Your task to perform on an android device: open chrome and create a bookmark for the current page Image 0: 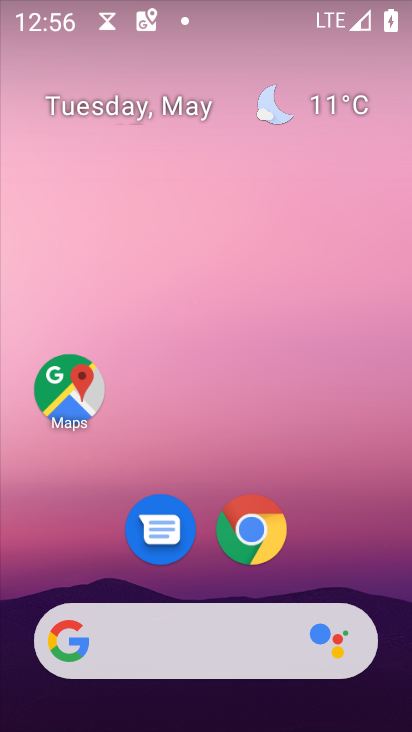
Step 0: click (255, 530)
Your task to perform on an android device: open chrome and create a bookmark for the current page Image 1: 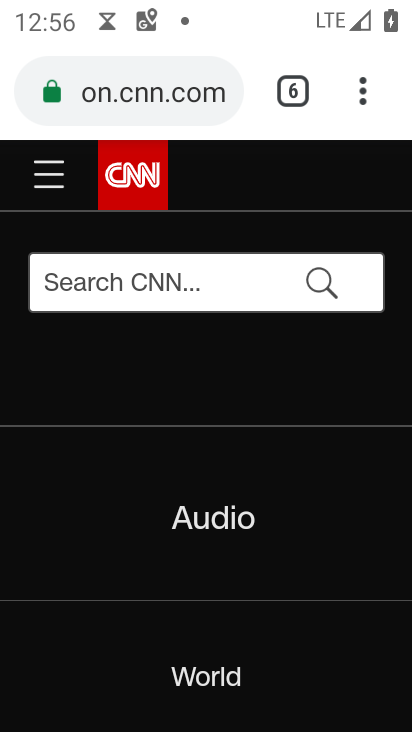
Step 1: click (363, 100)
Your task to perform on an android device: open chrome and create a bookmark for the current page Image 2: 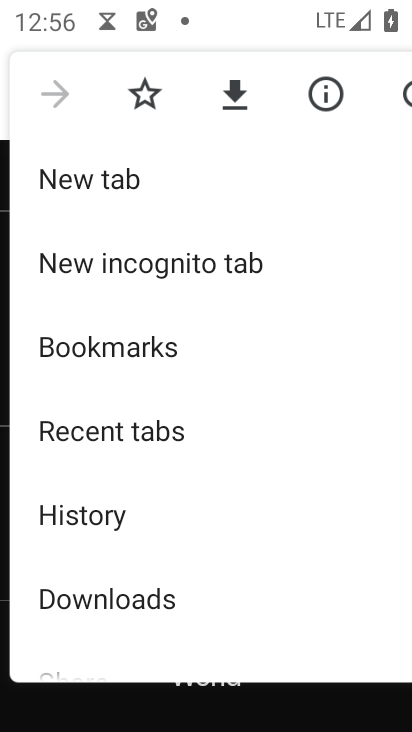
Step 2: click (146, 96)
Your task to perform on an android device: open chrome and create a bookmark for the current page Image 3: 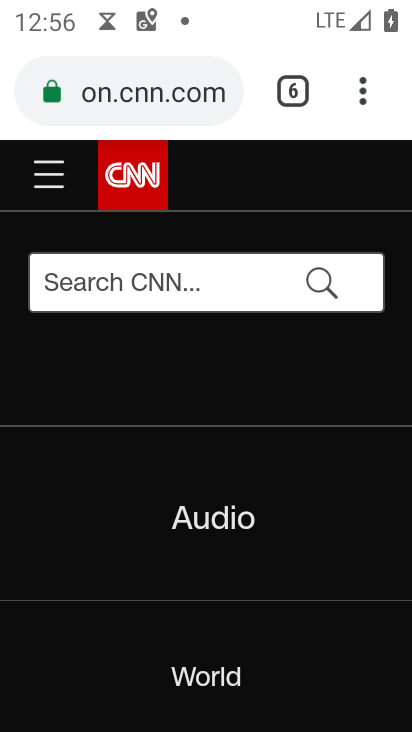
Step 3: task complete